Your task to perform on an android device: open app "Venmo" (install if not already installed) and enter user name: "bleedings@gmail.com" and password: "copied" Image 0: 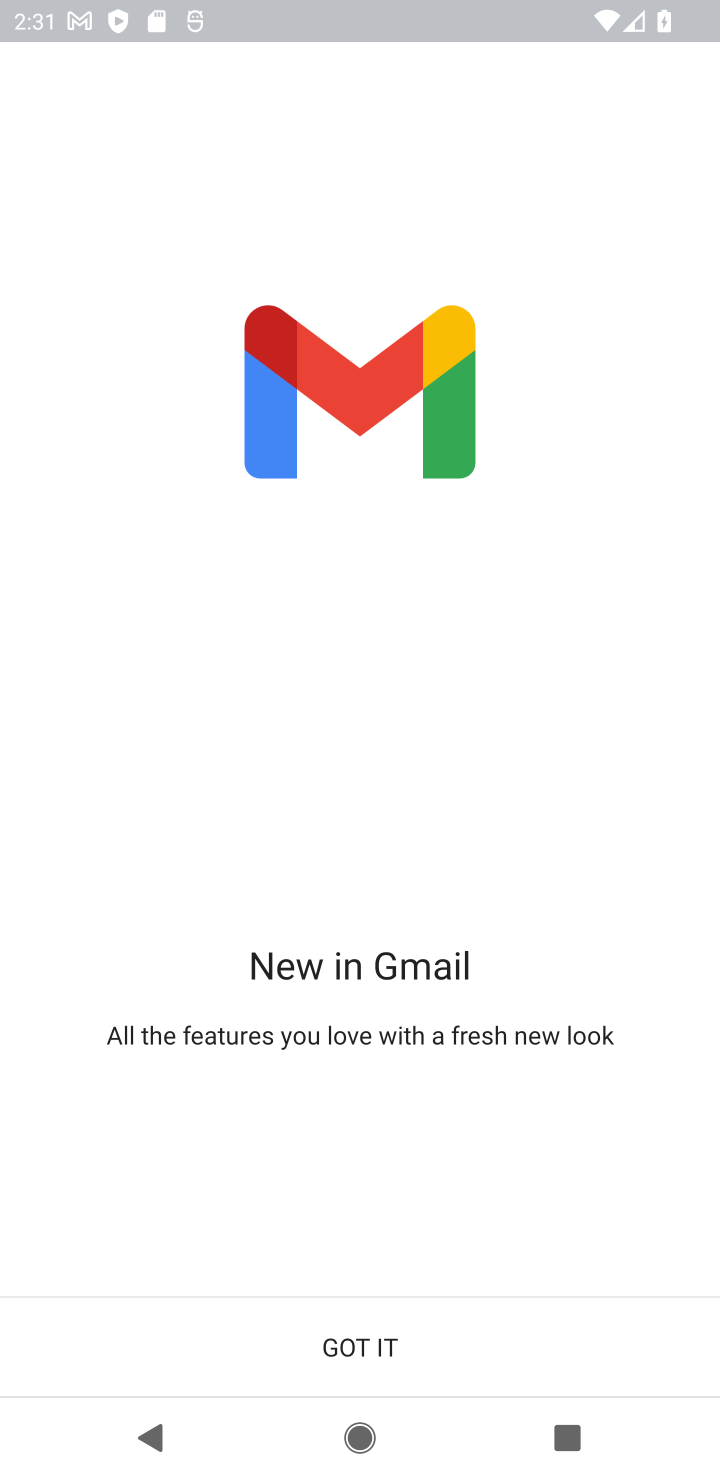
Step 0: press home button
Your task to perform on an android device: open app "Venmo" (install if not already installed) and enter user name: "bleedings@gmail.com" and password: "copied" Image 1: 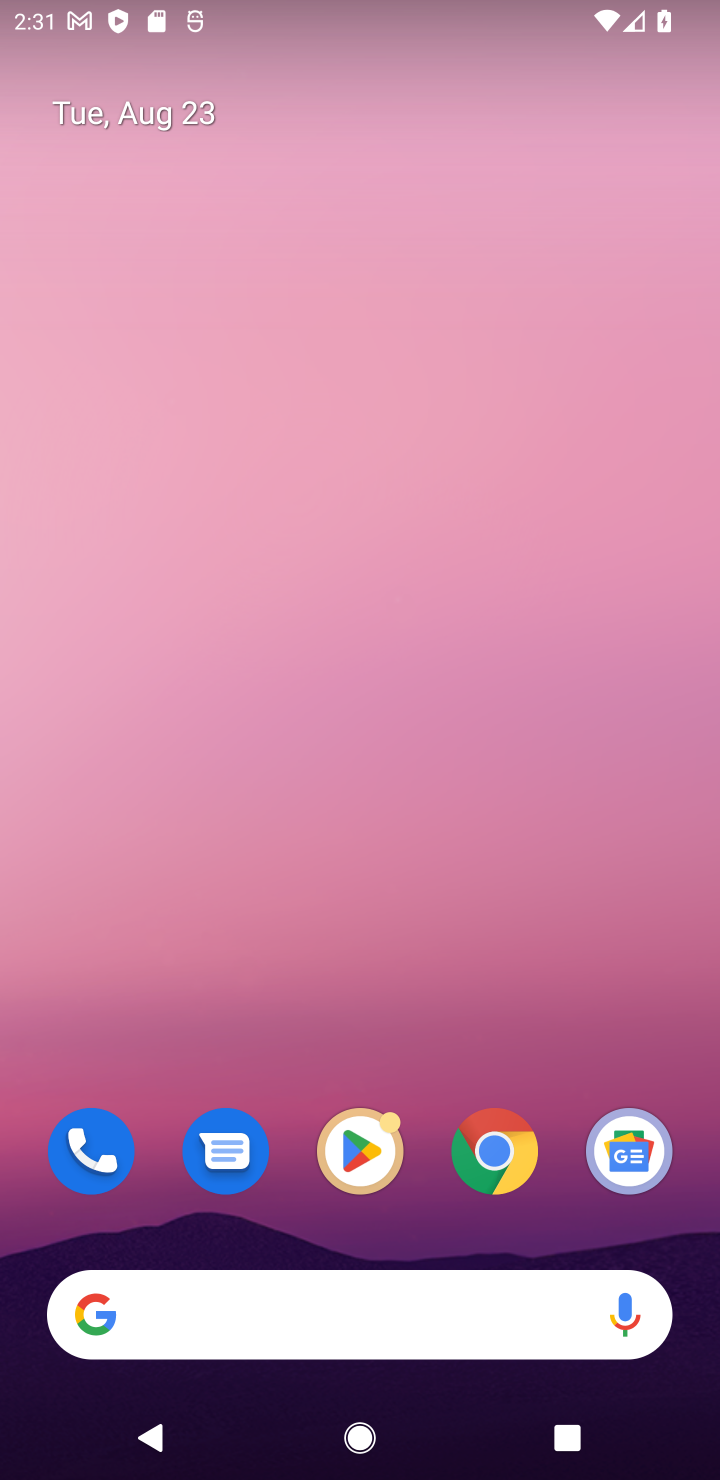
Step 1: click (367, 1152)
Your task to perform on an android device: open app "Venmo" (install if not already installed) and enter user name: "bleedings@gmail.com" and password: "copied" Image 2: 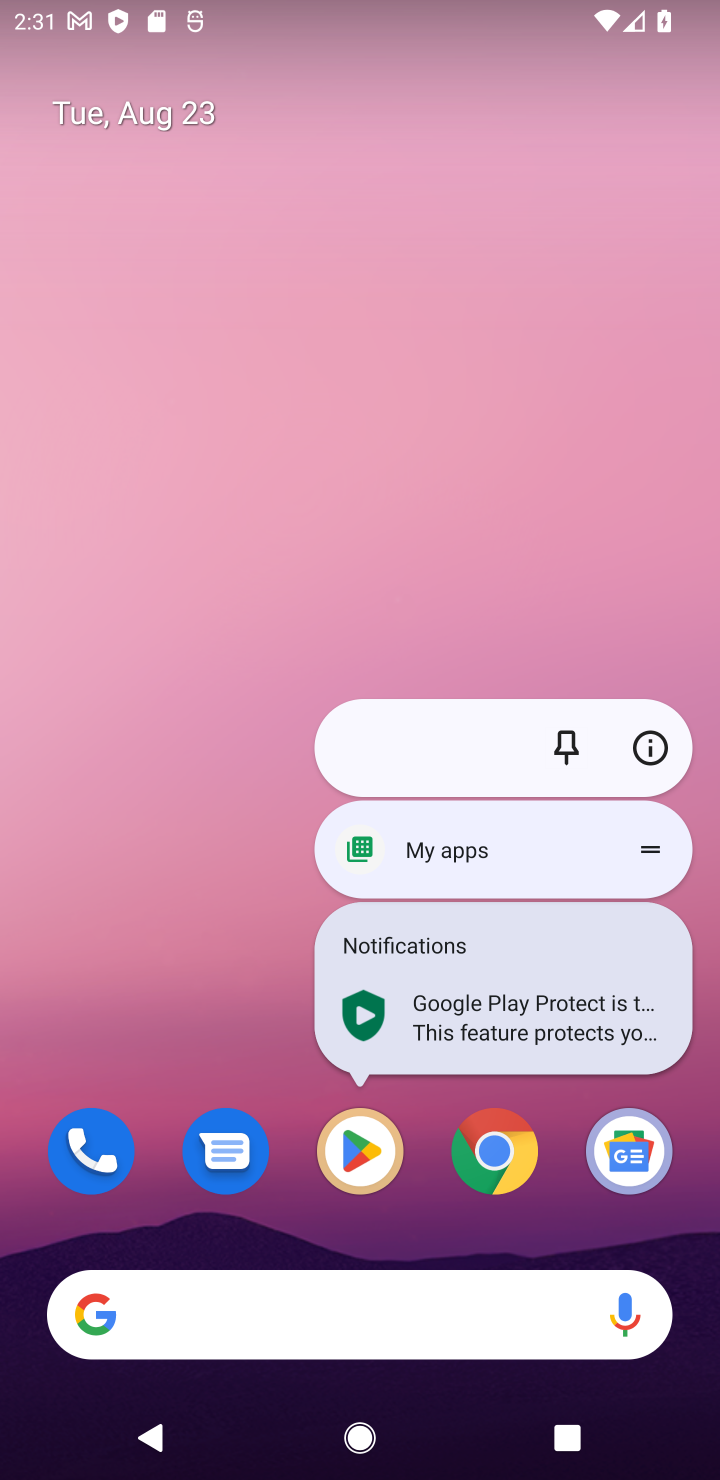
Step 2: click (351, 1141)
Your task to perform on an android device: open app "Venmo" (install if not already installed) and enter user name: "bleedings@gmail.com" and password: "copied" Image 3: 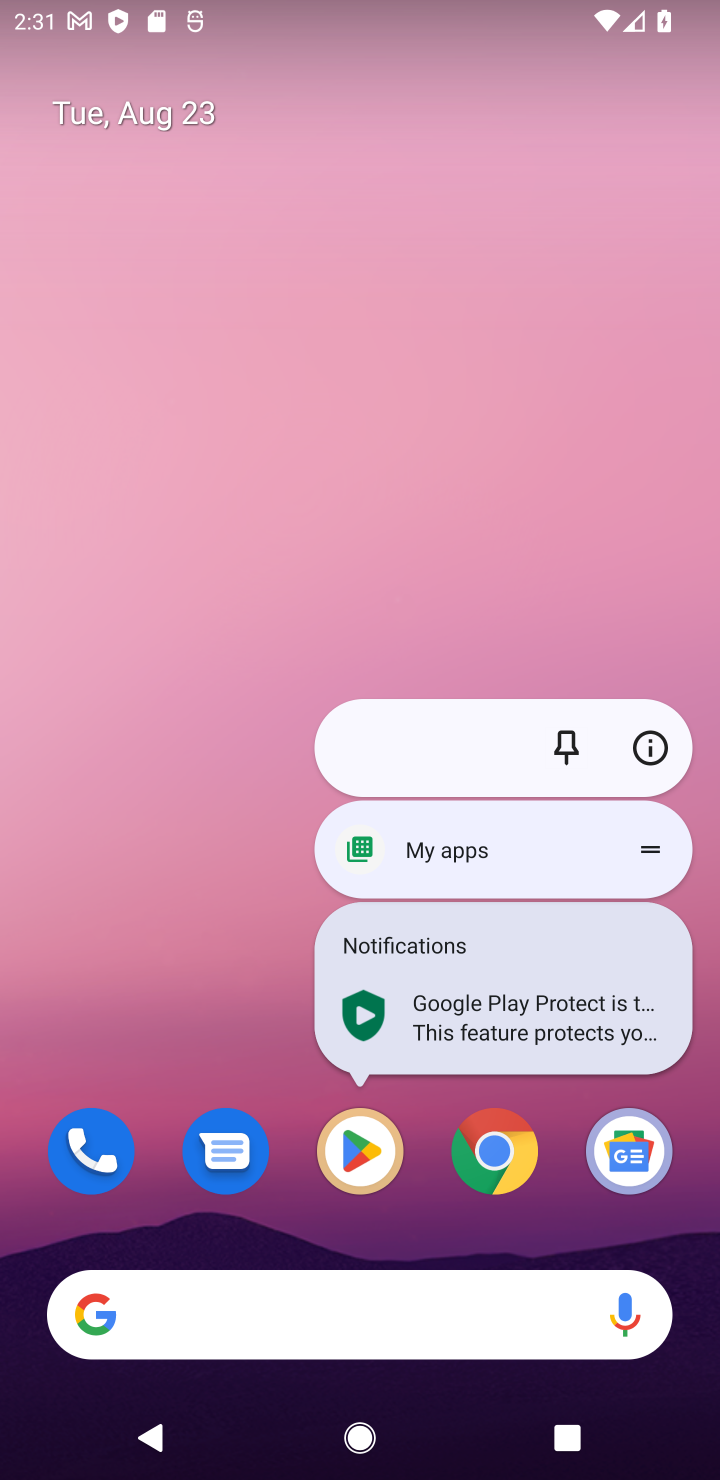
Step 3: click (351, 1152)
Your task to perform on an android device: open app "Venmo" (install if not already installed) and enter user name: "bleedings@gmail.com" and password: "copied" Image 4: 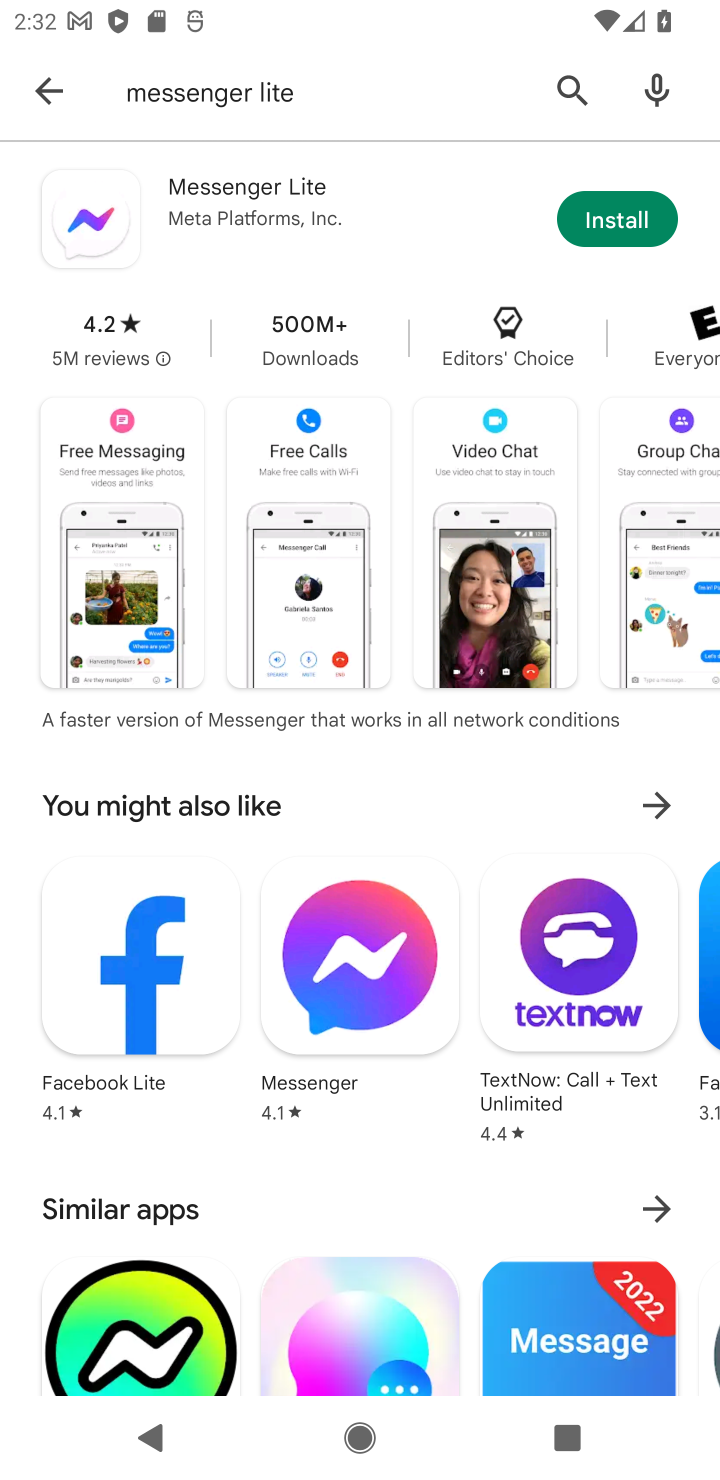
Step 4: click (570, 83)
Your task to perform on an android device: open app "Venmo" (install if not already installed) and enter user name: "bleedings@gmail.com" and password: "copied" Image 5: 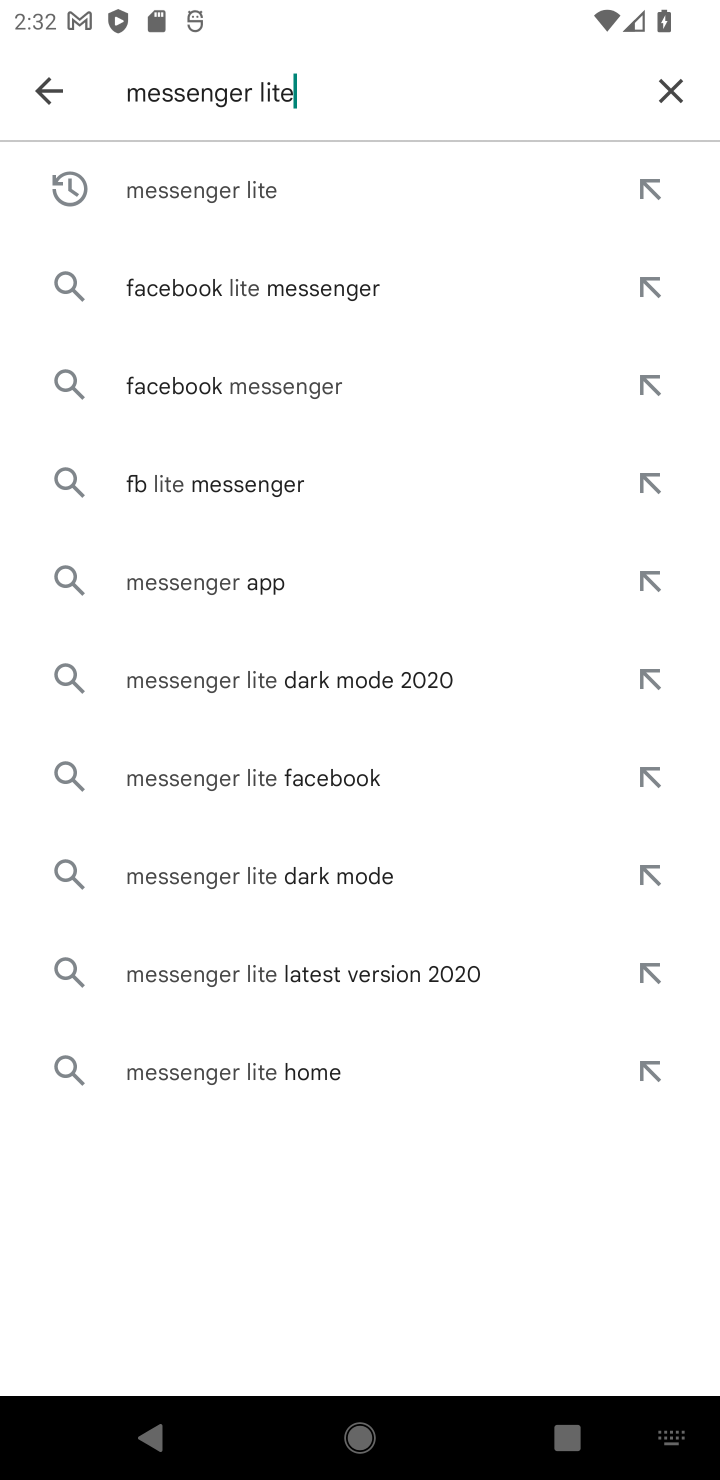
Step 5: click (681, 80)
Your task to perform on an android device: open app "Venmo" (install if not already installed) and enter user name: "bleedings@gmail.com" and password: "copied" Image 6: 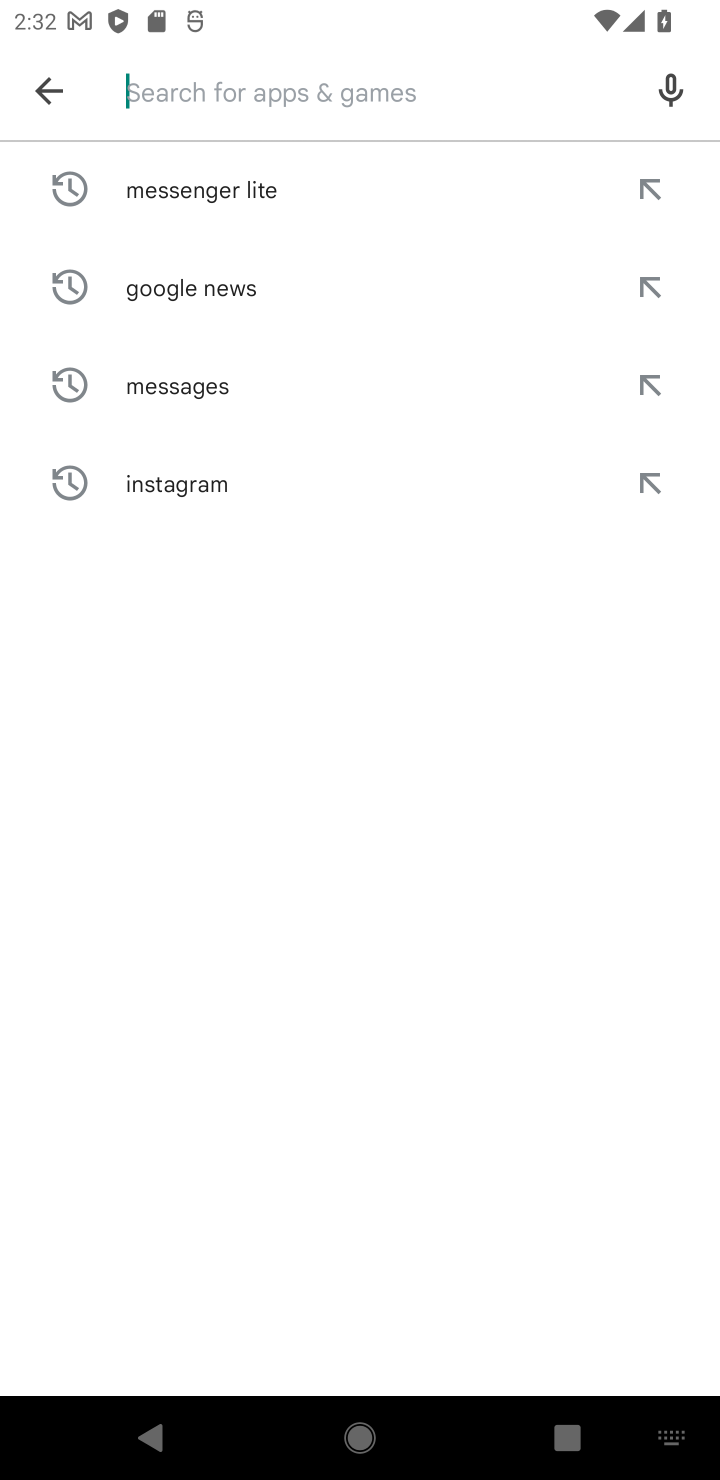
Step 6: type "Venmo"
Your task to perform on an android device: open app "Venmo" (install if not already installed) and enter user name: "bleedings@gmail.com" and password: "copied" Image 7: 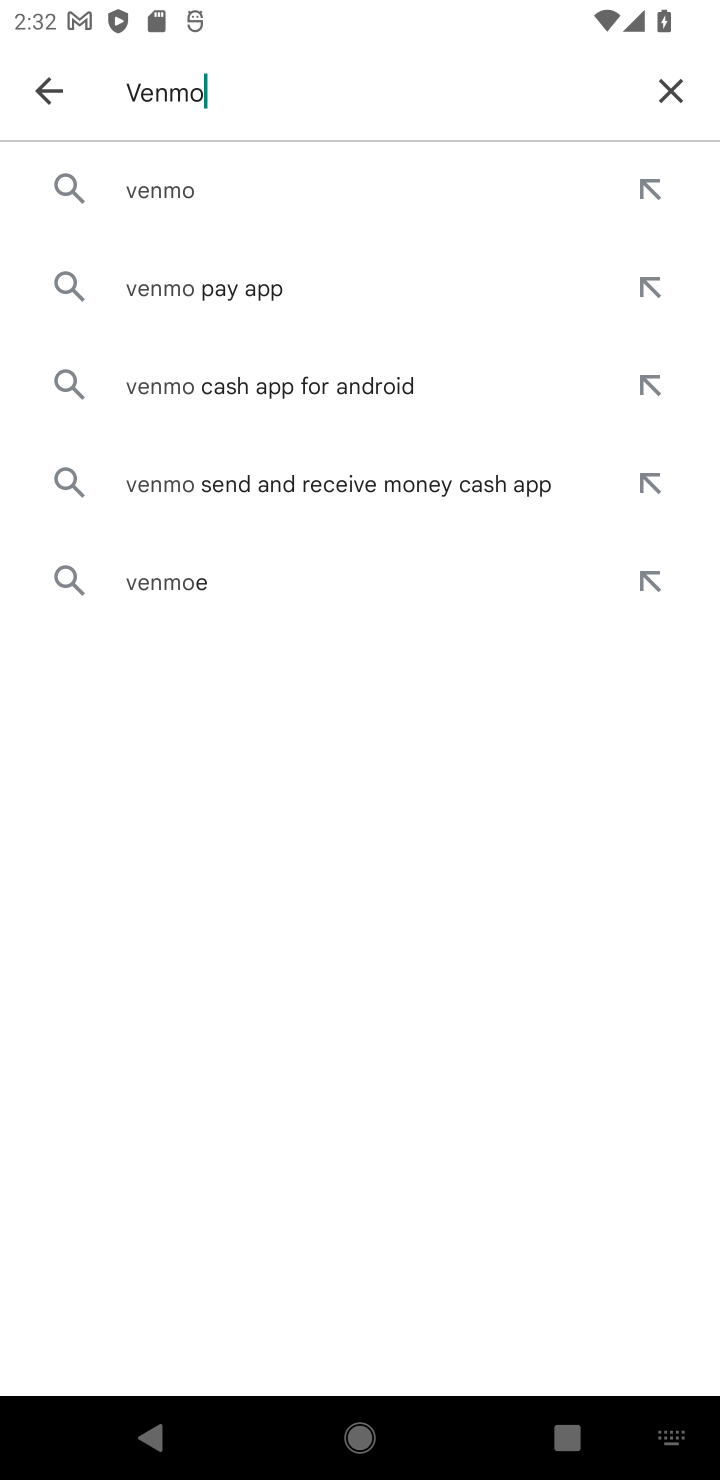
Step 7: click (146, 190)
Your task to perform on an android device: open app "Venmo" (install if not already installed) and enter user name: "bleedings@gmail.com" and password: "copied" Image 8: 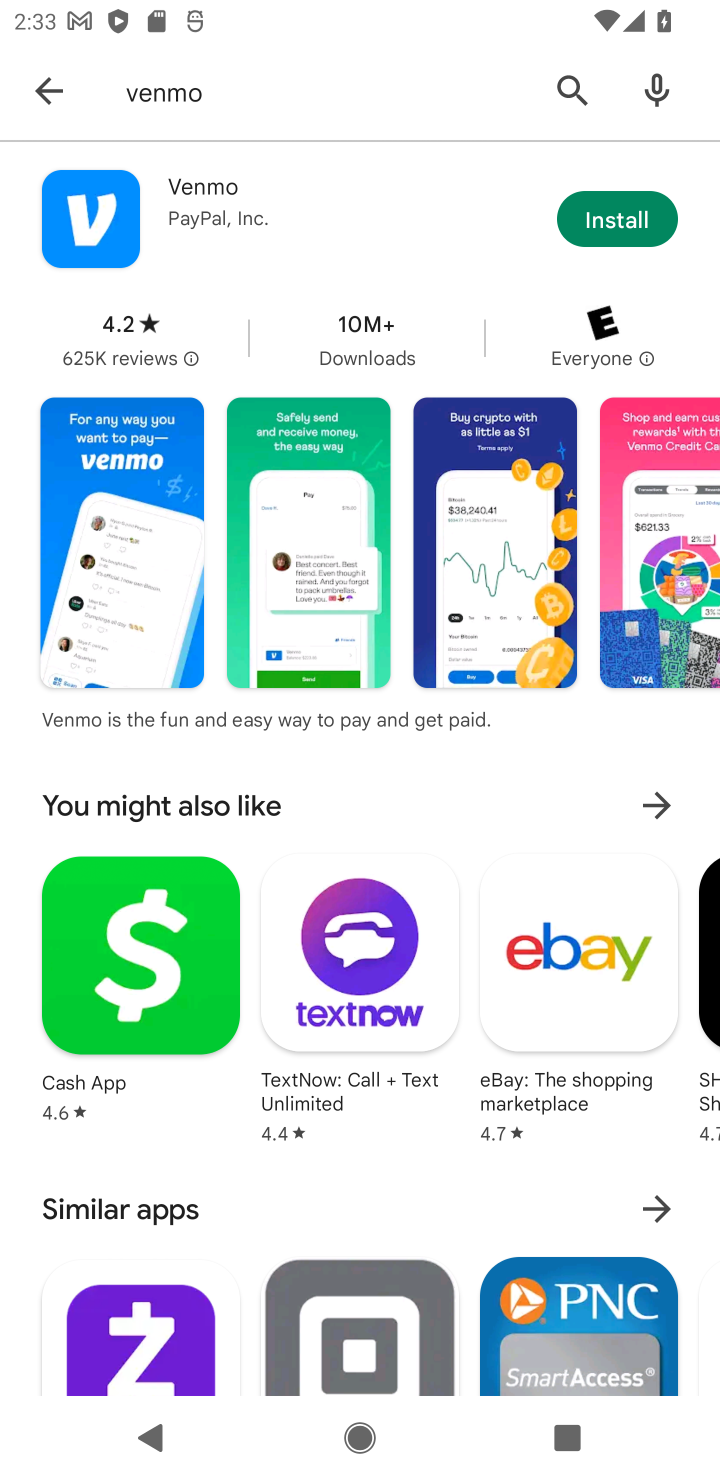
Step 8: click (601, 221)
Your task to perform on an android device: open app "Venmo" (install if not already installed) and enter user name: "bleedings@gmail.com" and password: "copied" Image 9: 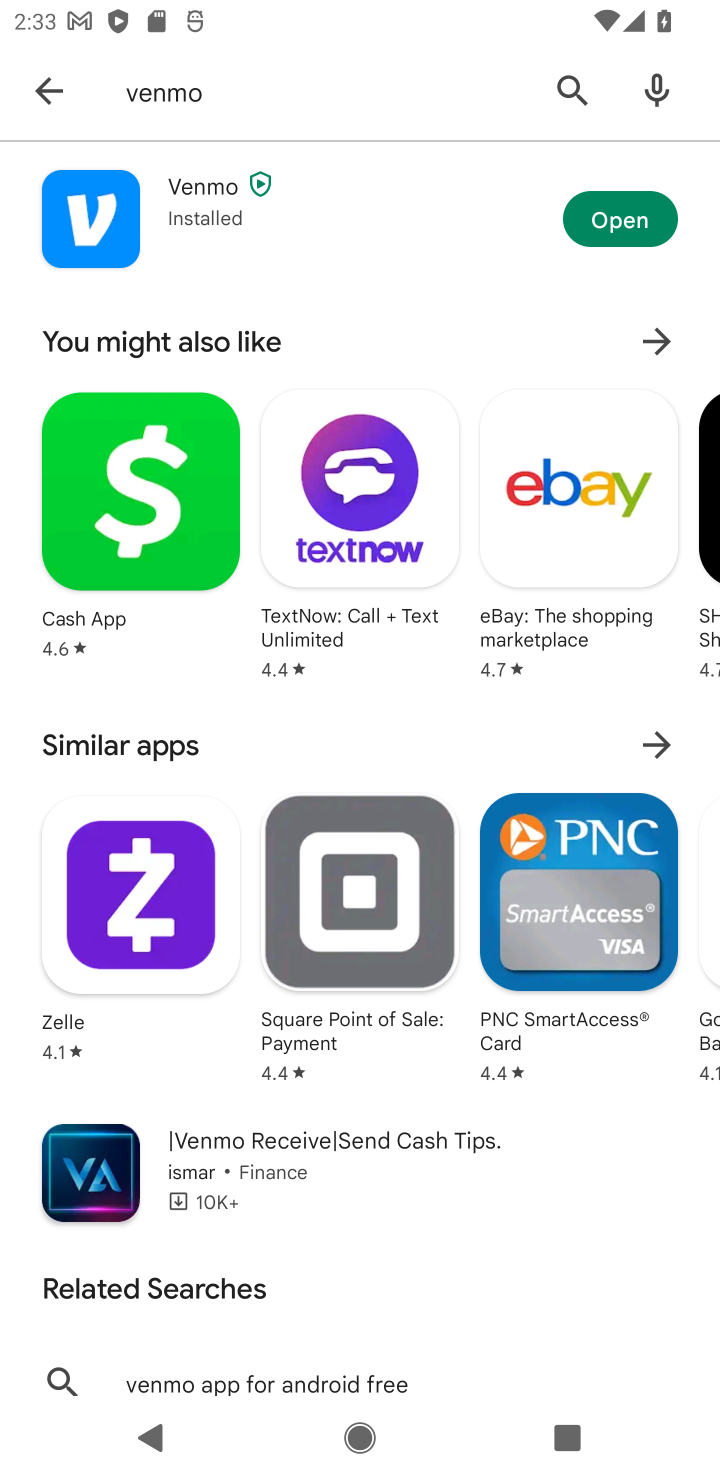
Step 9: click (625, 221)
Your task to perform on an android device: open app "Venmo" (install if not already installed) and enter user name: "bleedings@gmail.com" and password: "copied" Image 10: 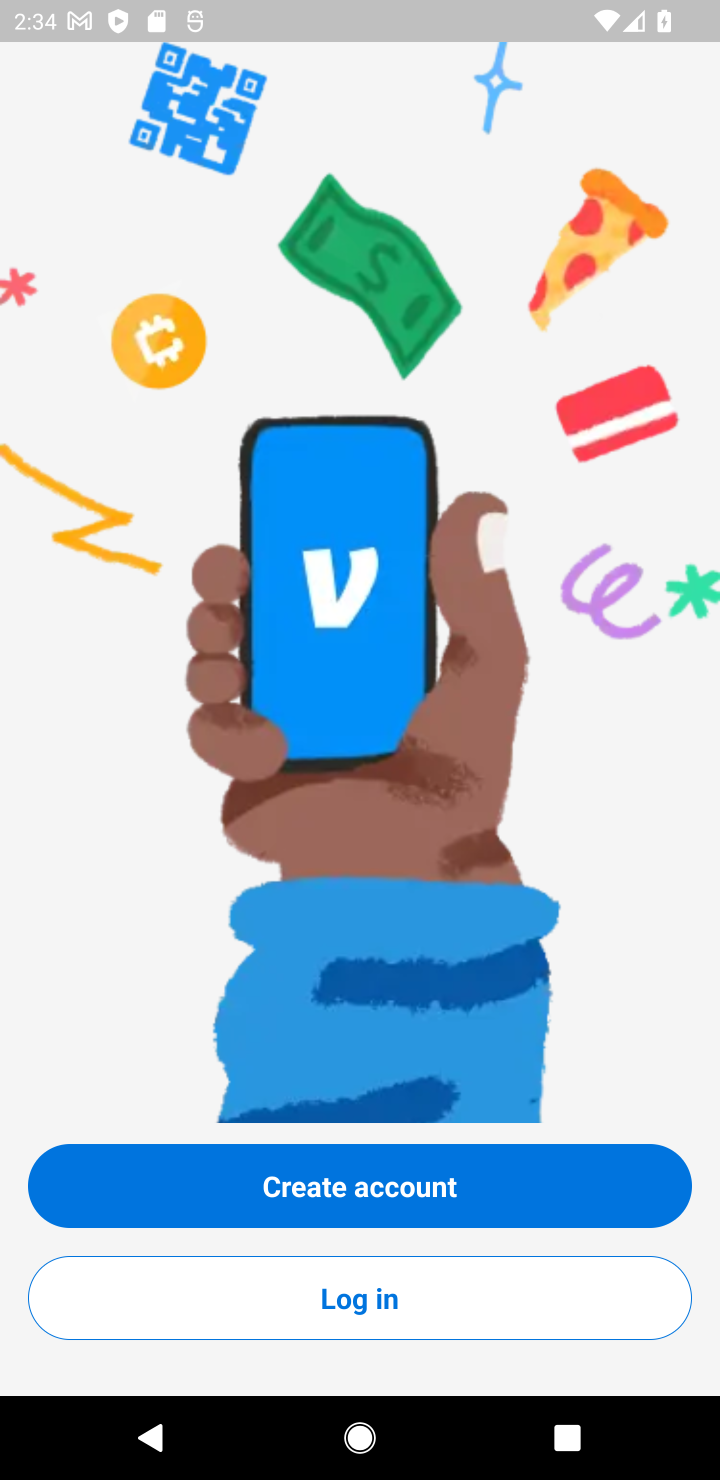
Step 10: click (408, 1284)
Your task to perform on an android device: open app "Venmo" (install if not already installed) and enter user name: "bleedings@gmail.com" and password: "copied" Image 11: 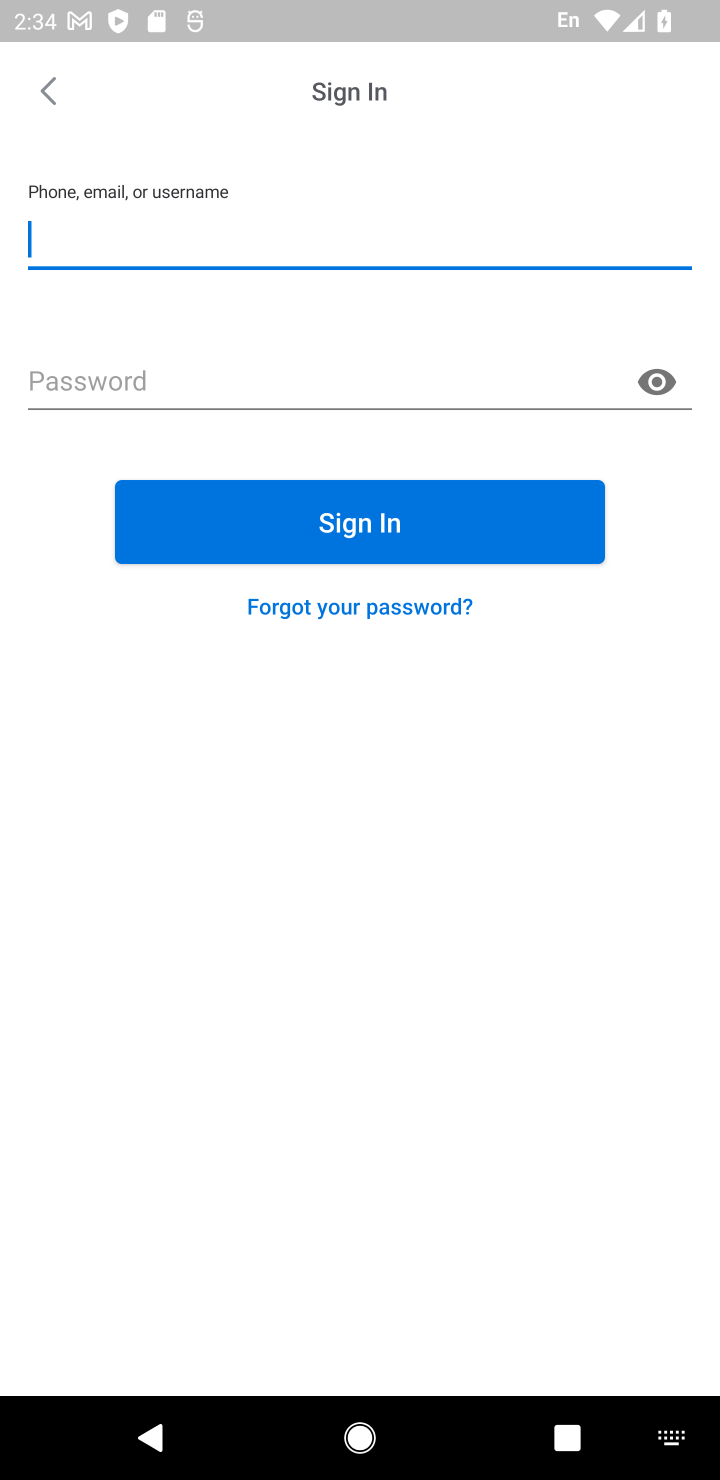
Step 11: type "bleedings@gmail.com"
Your task to perform on an android device: open app "Venmo" (install if not already installed) and enter user name: "bleedings@gmail.com" and password: "copied" Image 12: 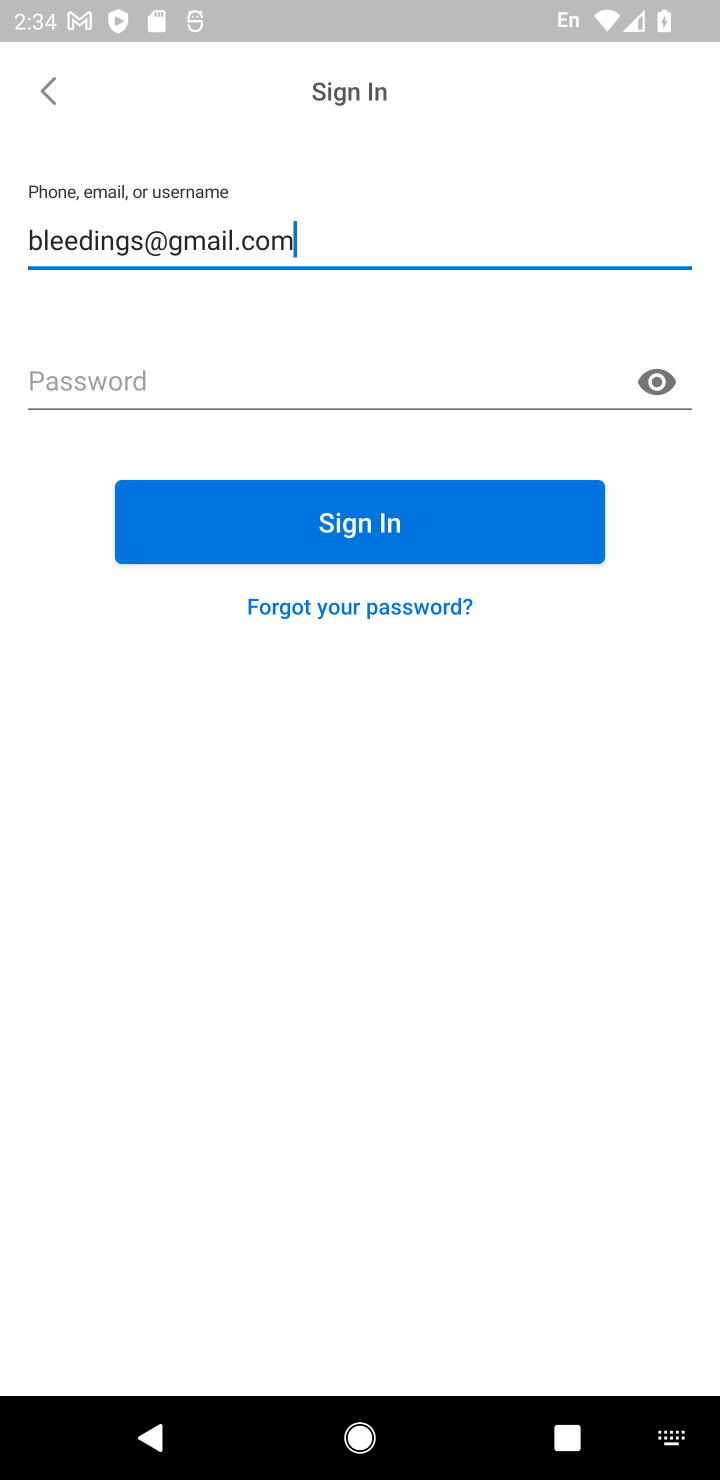
Step 12: click (48, 354)
Your task to perform on an android device: open app "Venmo" (install if not already installed) and enter user name: "bleedings@gmail.com" and password: "copied" Image 13: 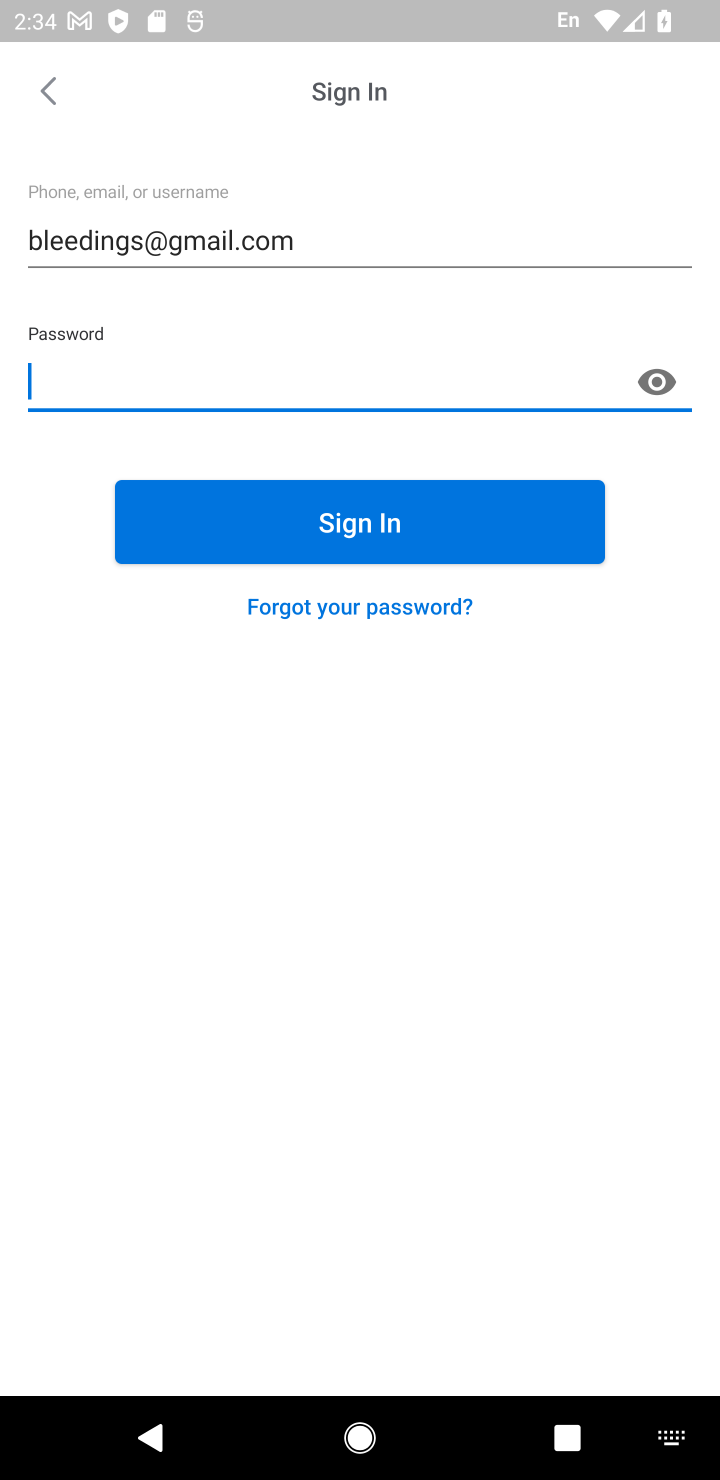
Step 13: type "copied"
Your task to perform on an android device: open app "Venmo" (install if not already installed) and enter user name: "bleedings@gmail.com" and password: "copied" Image 14: 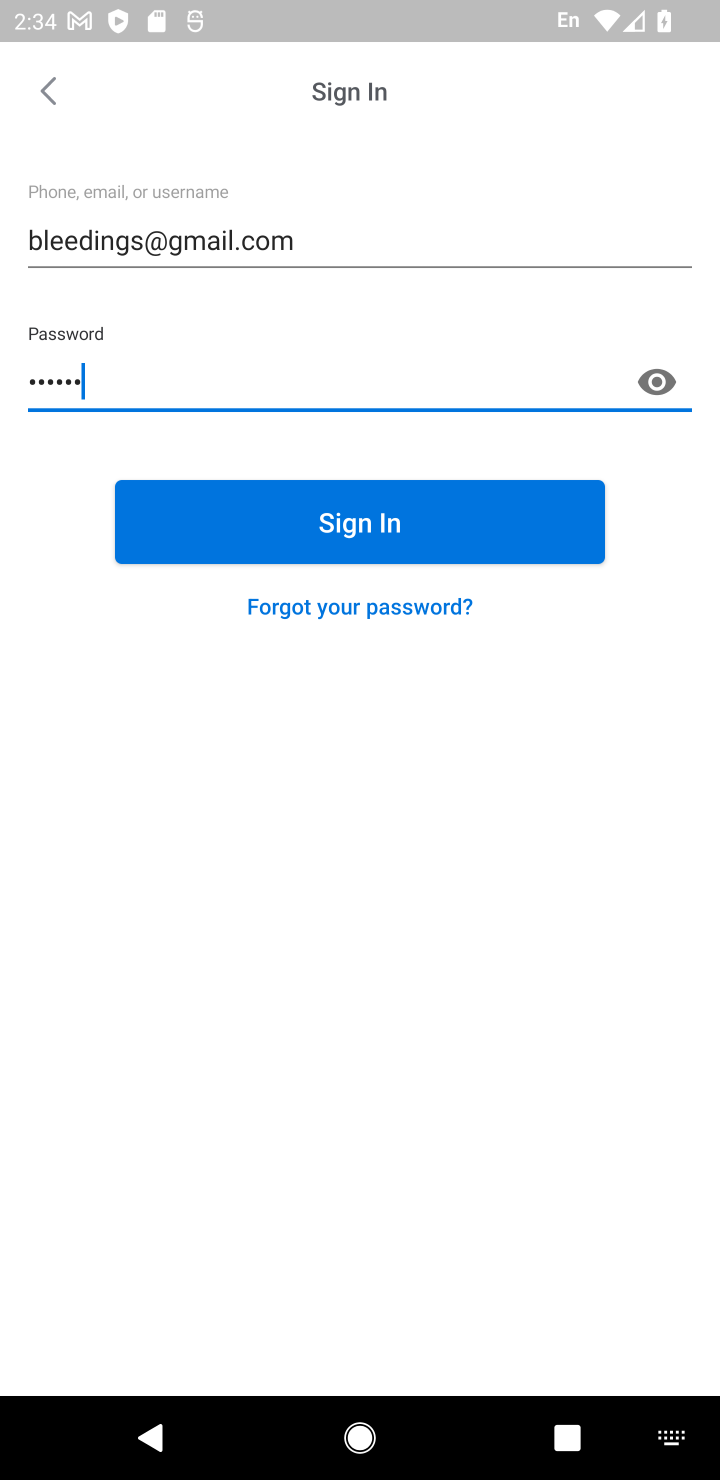
Step 14: task complete